Your task to perform on an android device: toggle data saver in the chrome app Image 0: 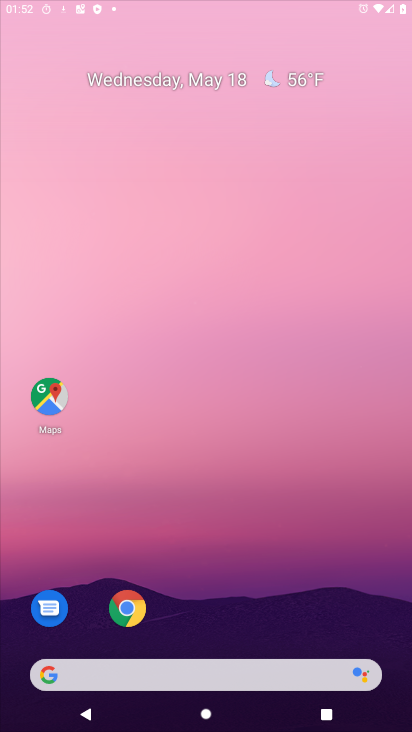
Step 0: press home button
Your task to perform on an android device: toggle data saver in the chrome app Image 1: 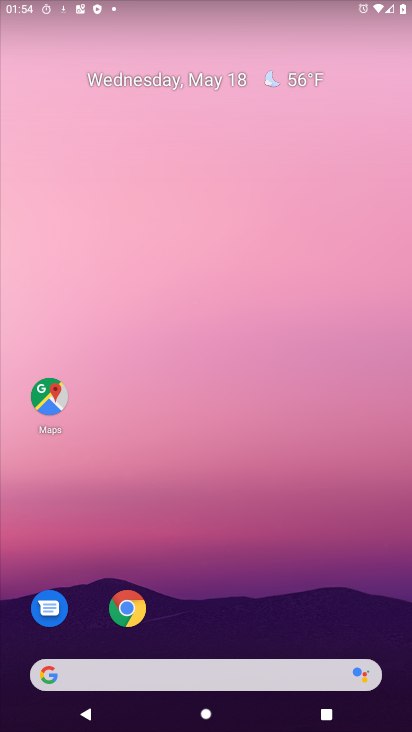
Step 1: drag from (211, 689) to (236, 216)
Your task to perform on an android device: toggle data saver in the chrome app Image 2: 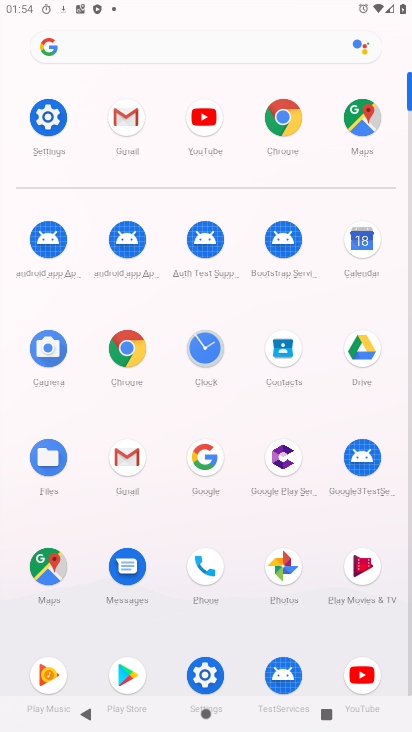
Step 2: click (270, 125)
Your task to perform on an android device: toggle data saver in the chrome app Image 3: 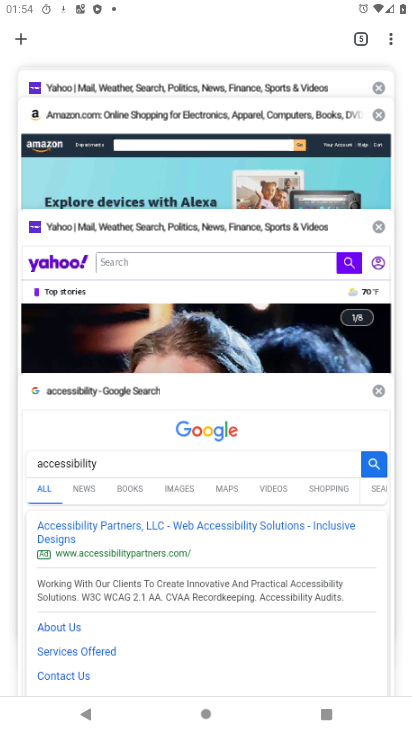
Step 3: click (386, 51)
Your task to perform on an android device: toggle data saver in the chrome app Image 4: 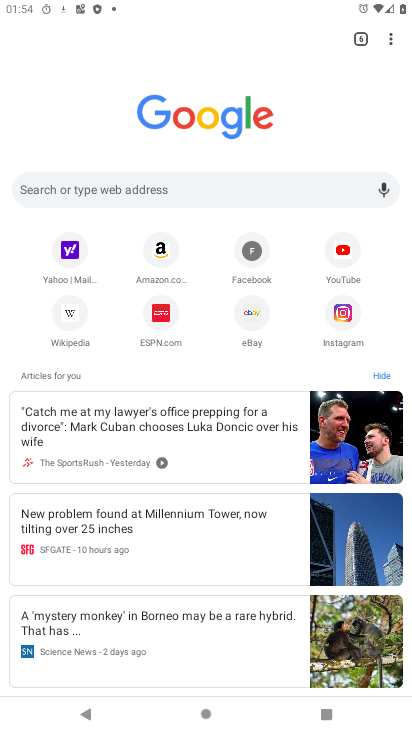
Step 4: click (383, 51)
Your task to perform on an android device: toggle data saver in the chrome app Image 5: 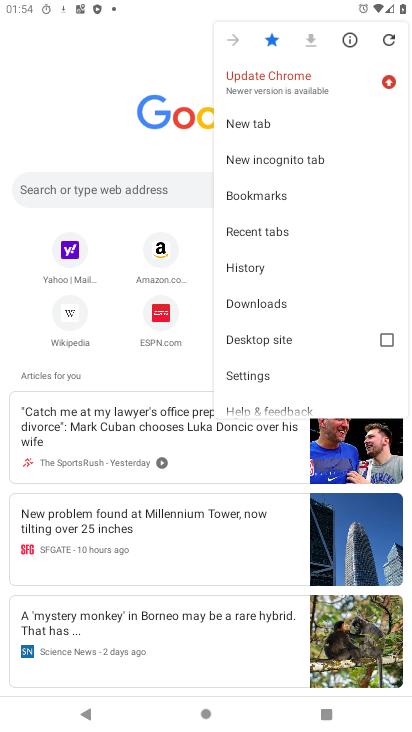
Step 5: click (261, 371)
Your task to perform on an android device: toggle data saver in the chrome app Image 6: 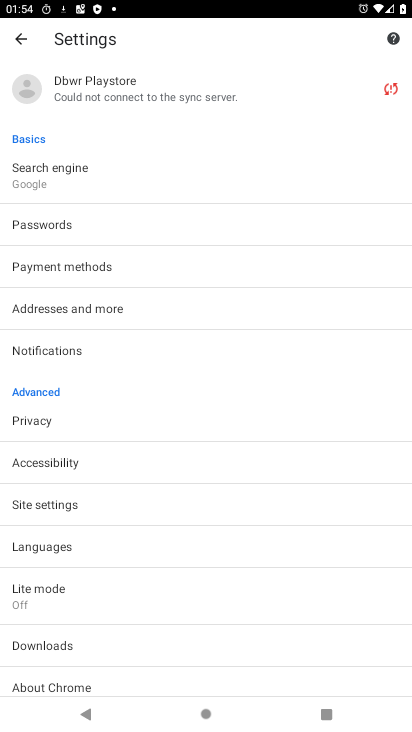
Step 6: click (38, 589)
Your task to perform on an android device: toggle data saver in the chrome app Image 7: 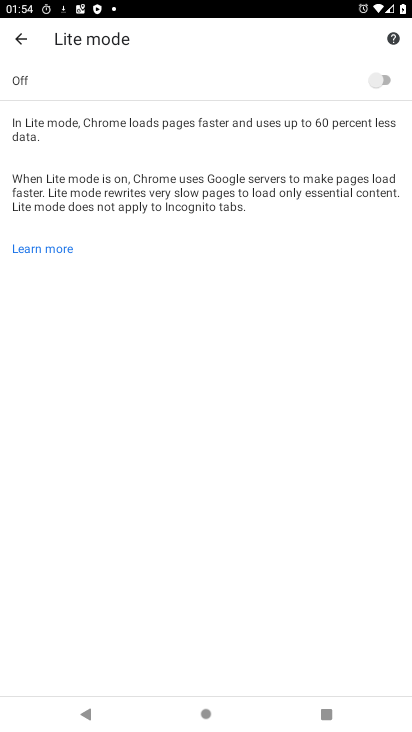
Step 7: task complete